Your task to perform on an android device: set the stopwatch Image 0: 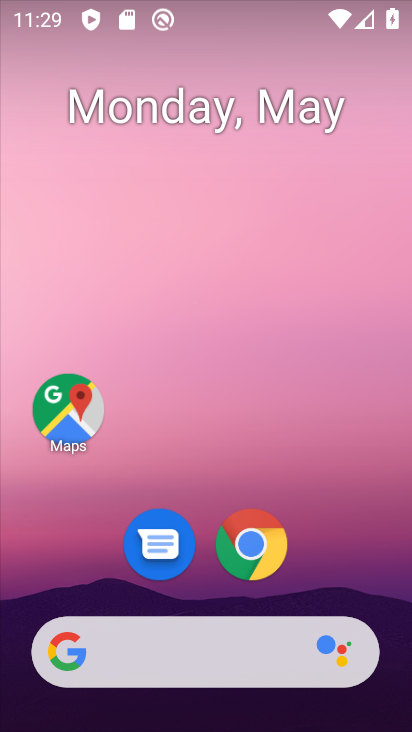
Step 0: drag from (86, 607) to (237, 125)
Your task to perform on an android device: set the stopwatch Image 1: 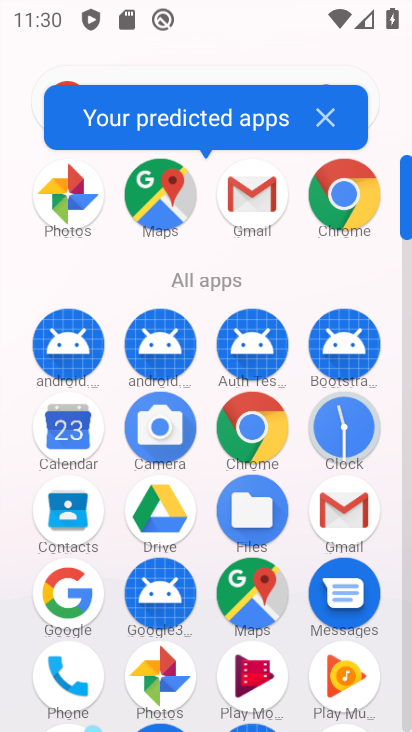
Step 1: click (364, 419)
Your task to perform on an android device: set the stopwatch Image 2: 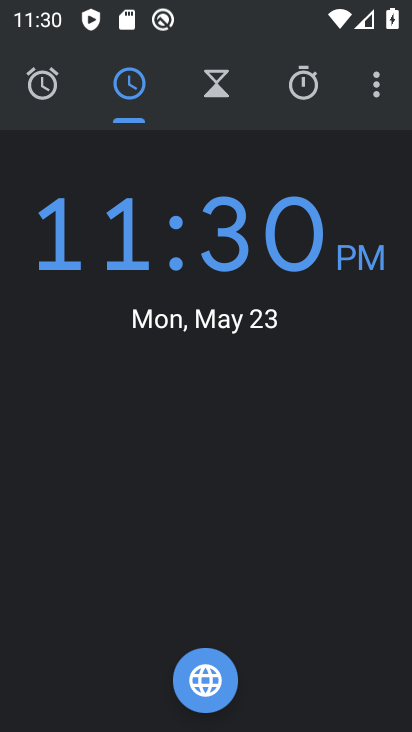
Step 2: click (307, 98)
Your task to perform on an android device: set the stopwatch Image 3: 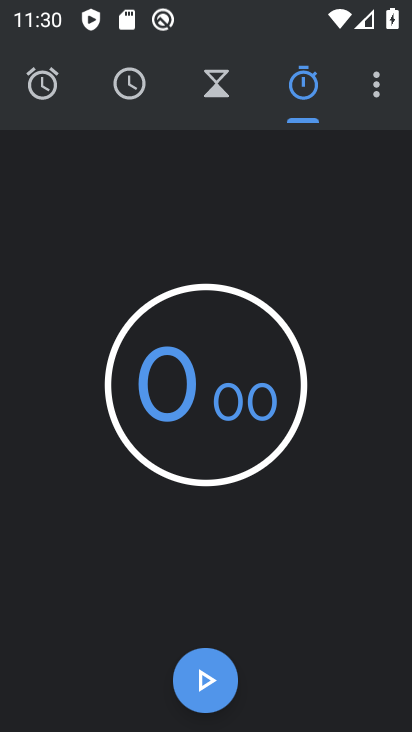
Step 3: click (214, 675)
Your task to perform on an android device: set the stopwatch Image 4: 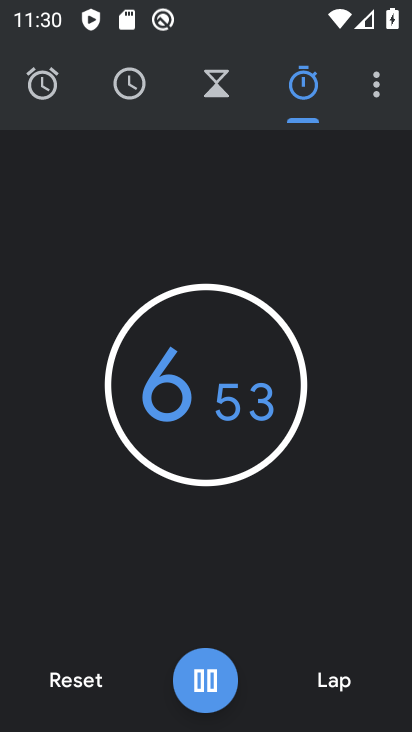
Step 4: task complete